Your task to perform on an android device: What is the news today? Image 0: 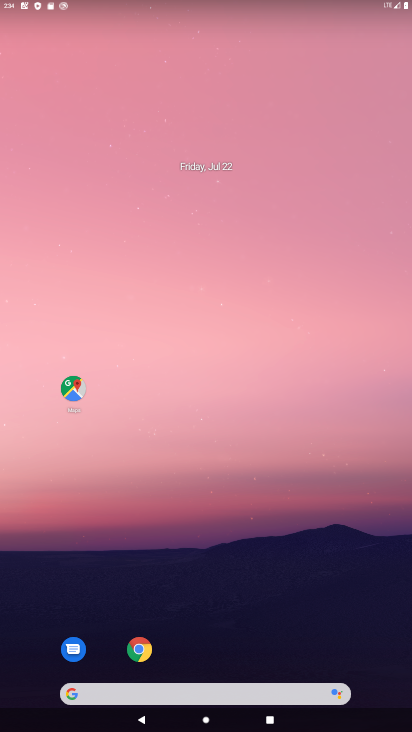
Step 0: drag from (186, 593) to (188, 282)
Your task to perform on an android device: What is the news today? Image 1: 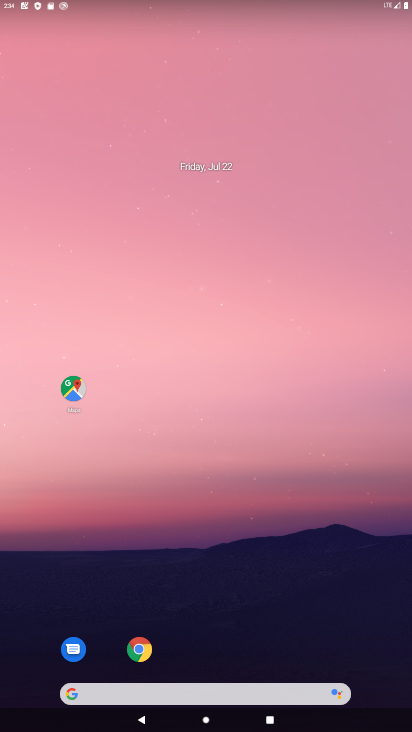
Step 1: drag from (160, 655) to (247, 102)
Your task to perform on an android device: What is the news today? Image 2: 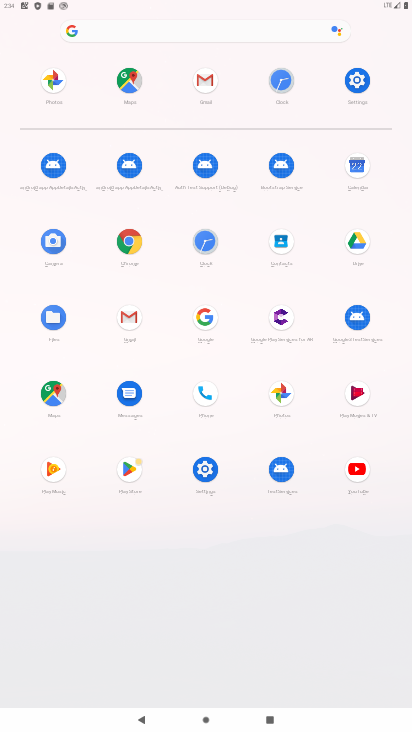
Step 2: click (169, 31)
Your task to perform on an android device: What is the news today? Image 3: 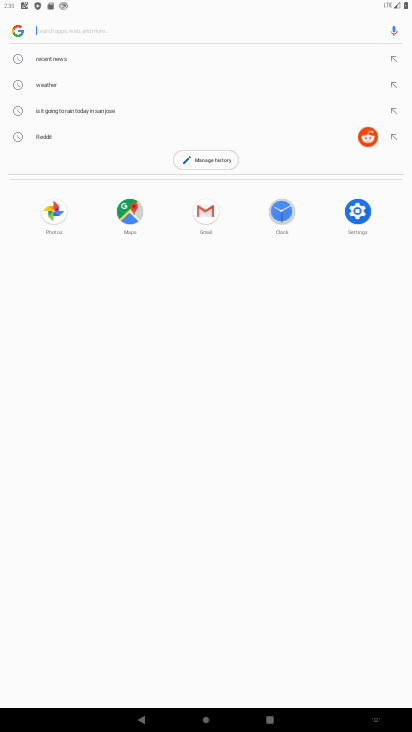
Step 3: type "new today"
Your task to perform on an android device: What is the news today? Image 4: 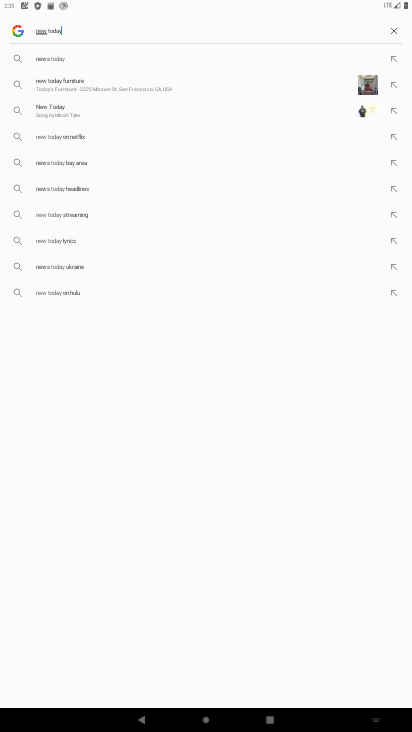
Step 4: click (56, 55)
Your task to perform on an android device: What is the news today? Image 5: 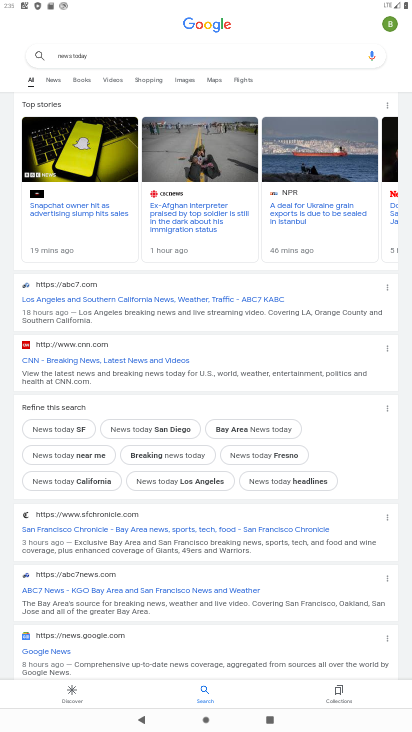
Step 5: task complete